Your task to perform on an android device: Search for pizza restaurants on Maps Image 0: 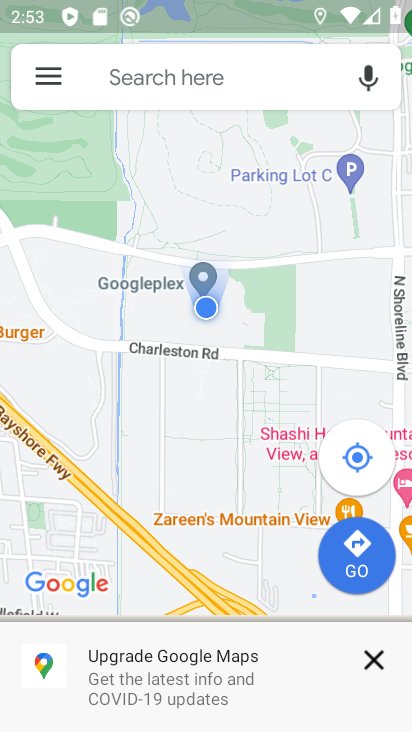
Step 0: press home button
Your task to perform on an android device: Search for pizza restaurants on Maps Image 1: 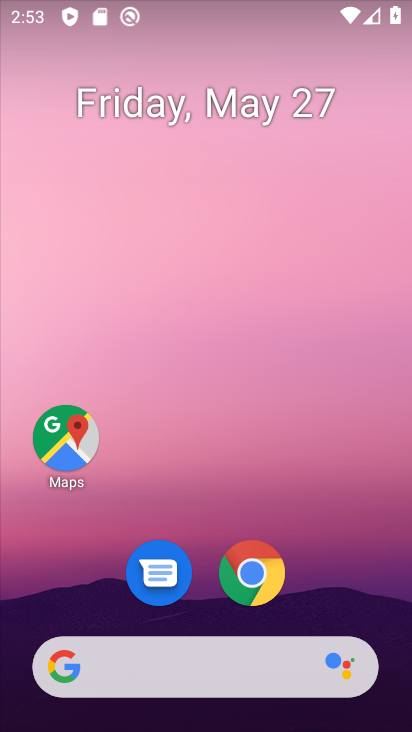
Step 1: click (62, 427)
Your task to perform on an android device: Search for pizza restaurants on Maps Image 2: 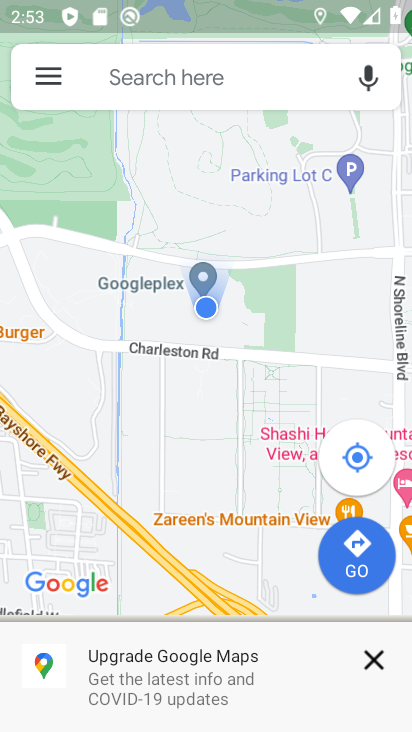
Step 2: click (215, 75)
Your task to perform on an android device: Search for pizza restaurants on Maps Image 3: 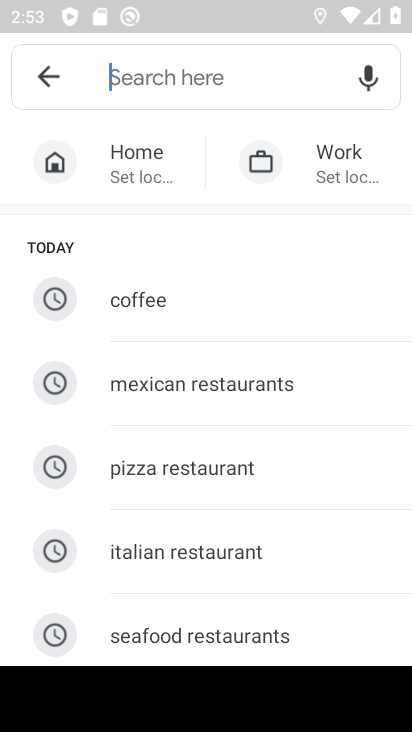
Step 3: click (243, 472)
Your task to perform on an android device: Search for pizza restaurants on Maps Image 4: 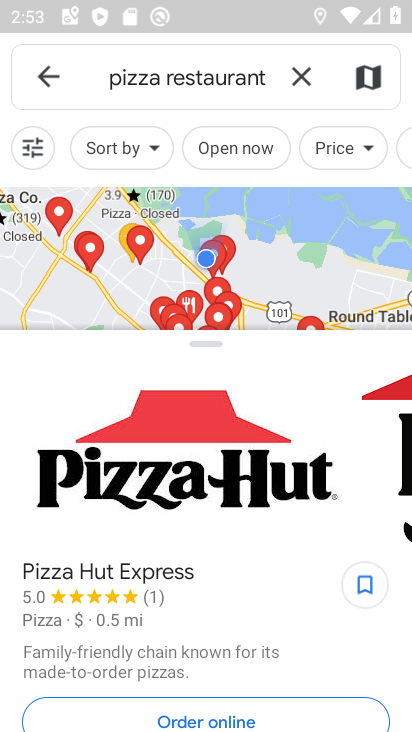
Step 4: task complete